Your task to perform on an android device: open chrome and create a bookmark for the current page Image 0: 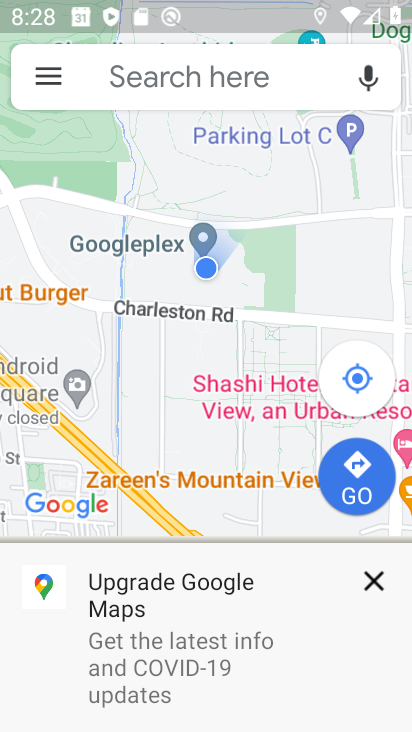
Step 0: press home button
Your task to perform on an android device: open chrome and create a bookmark for the current page Image 1: 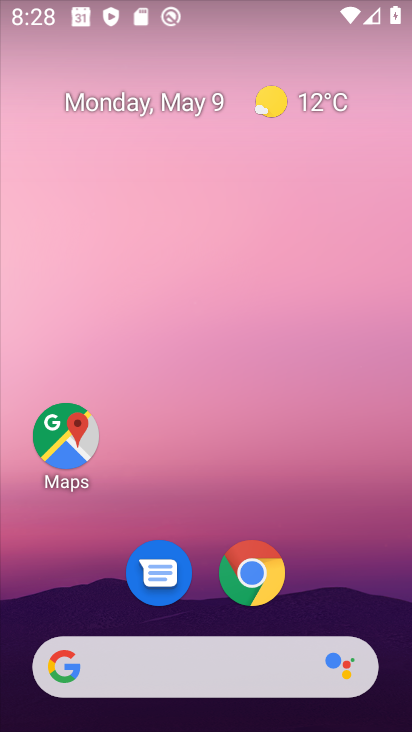
Step 1: drag from (207, 661) to (116, 216)
Your task to perform on an android device: open chrome and create a bookmark for the current page Image 2: 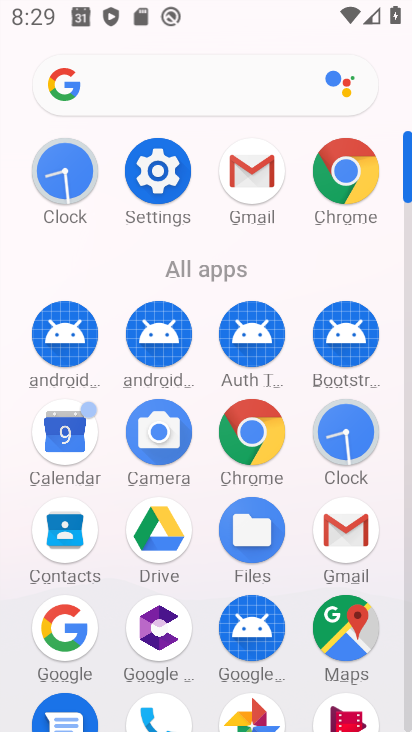
Step 2: click (330, 194)
Your task to perform on an android device: open chrome and create a bookmark for the current page Image 3: 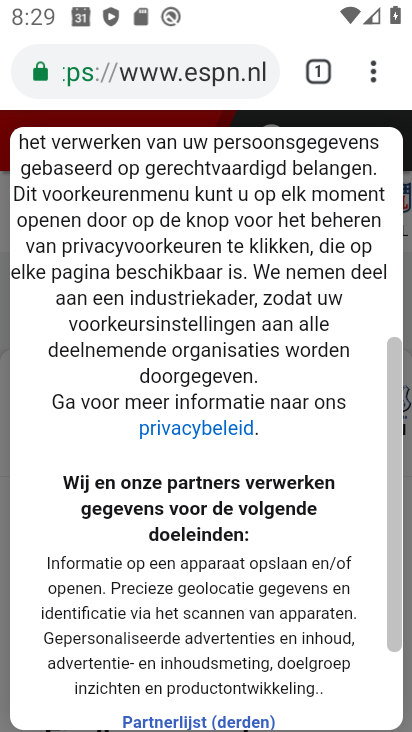
Step 3: click (316, 72)
Your task to perform on an android device: open chrome and create a bookmark for the current page Image 4: 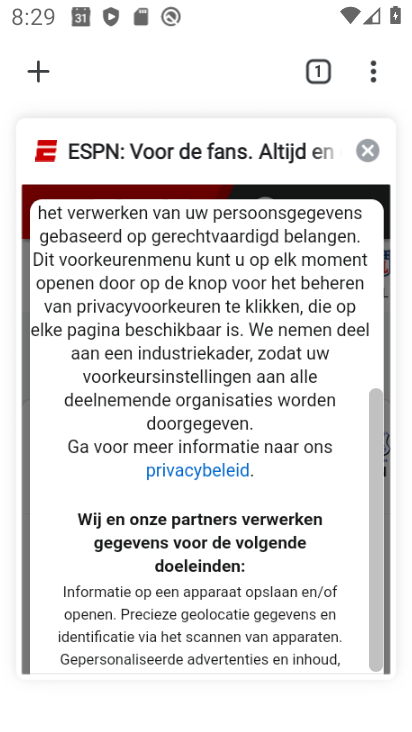
Step 4: click (300, 209)
Your task to perform on an android device: open chrome and create a bookmark for the current page Image 5: 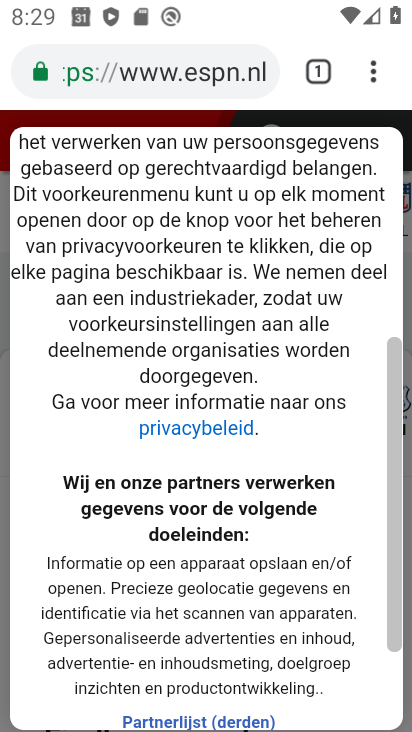
Step 5: click (370, 76)
Your task to perform on an android device: open chrome and create a bookmark for the current page Image 6: 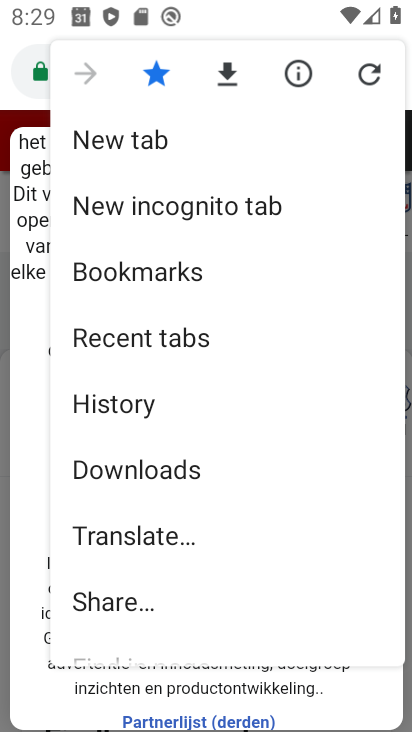
Step 6: task complete